Your task to perform on an android device: Show the shopping cart on costco. Search for razer naga on costco, select the first entry, and add it to the cart. Image 0: 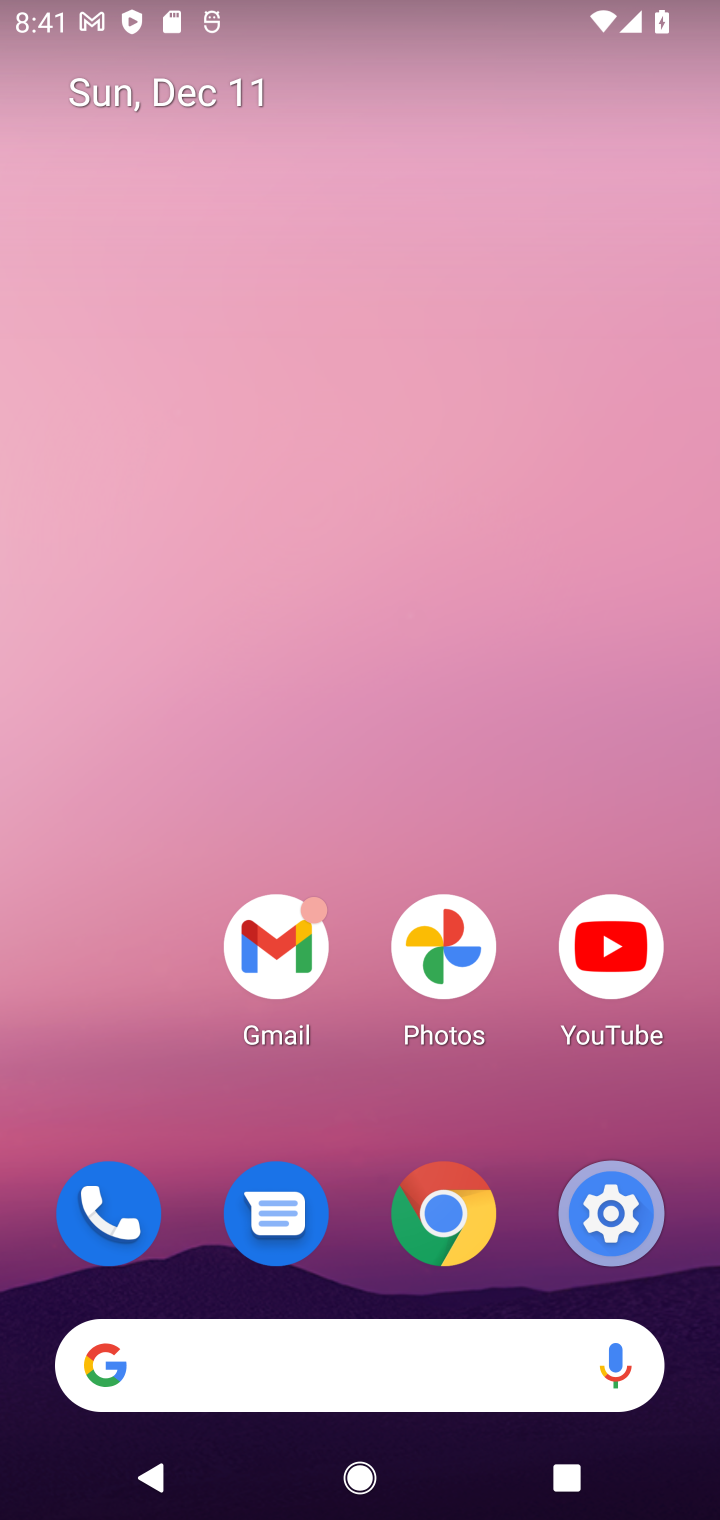
Step 0: click (396, 1359)
Your task to perform on an android device: Show the shopping cart on costco. Search for razer naga on costco, select the first entry, and add it to the cart. Image 1: 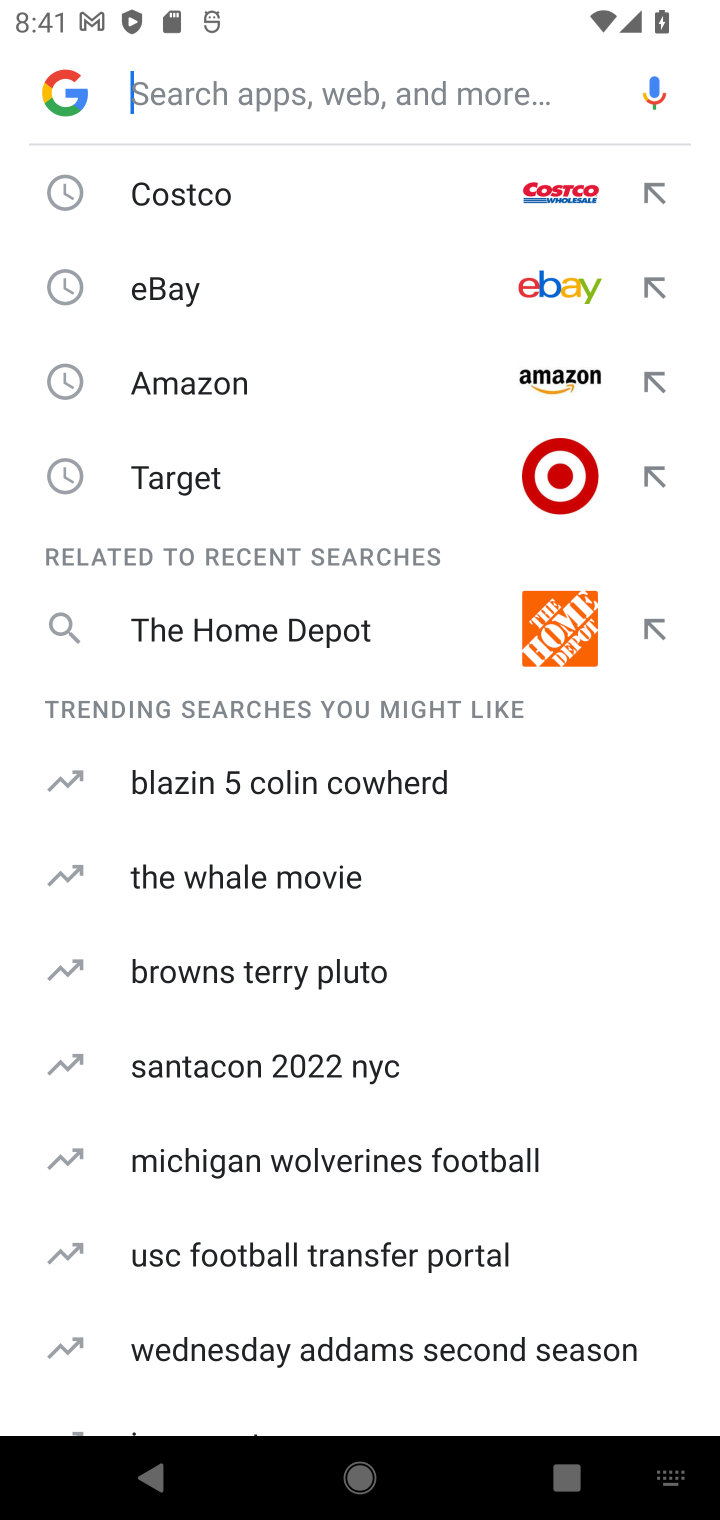
Step 1: type "costco"
Your task to perform on an android device: Show the shopping cart on costco. Search for razer naga on costco, select the first entry, and add it to the cart. Image 2: 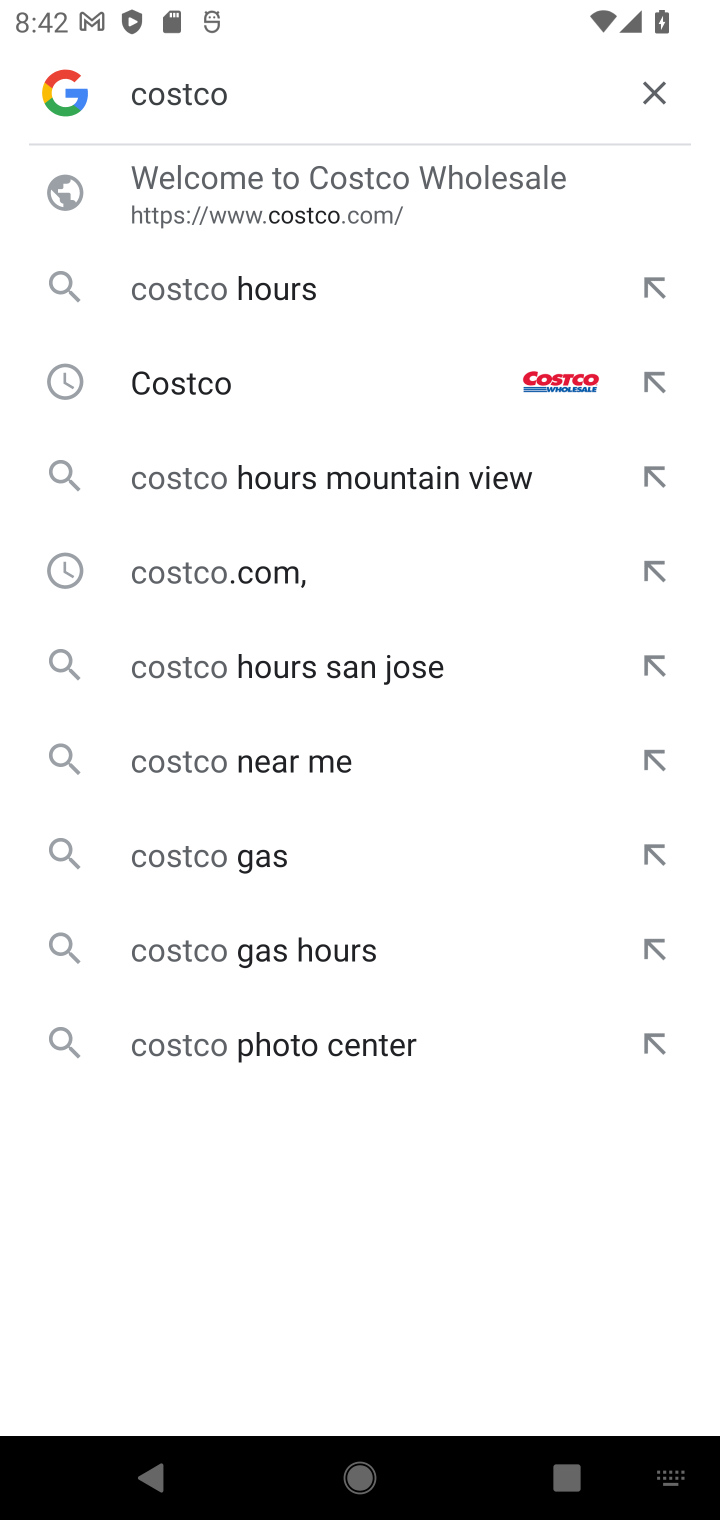
Step 2: click (278, 379)
Your task to perform on an android device: Show the shopping cart on costco. Search for razer naga on costco, select the first entry, and add it to the cart. Image 3: 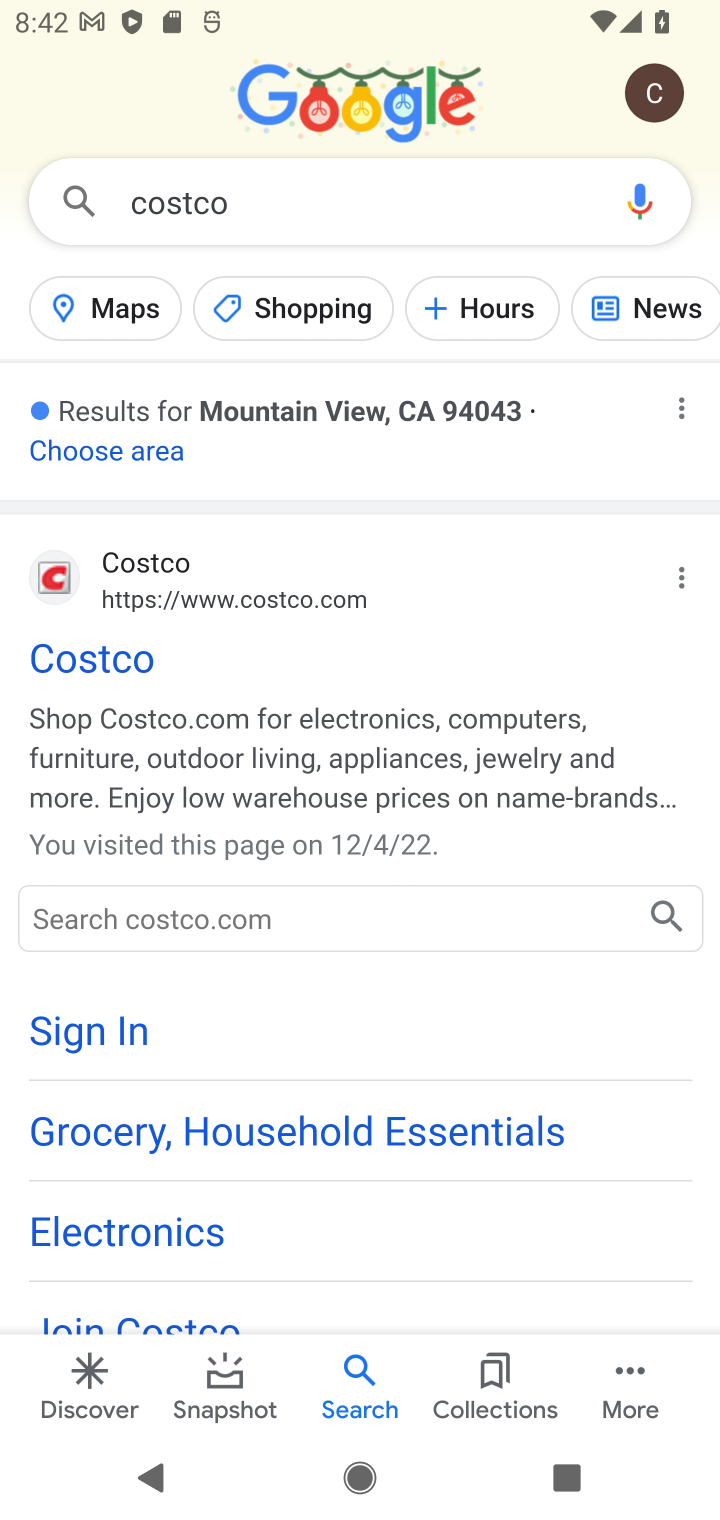
Step 3: click (72, 683)
Your task to perform on an android device: Show the shopping cart on costco. Search for razer naga on costco, select the first entry, and add it to the cart. Image 4: 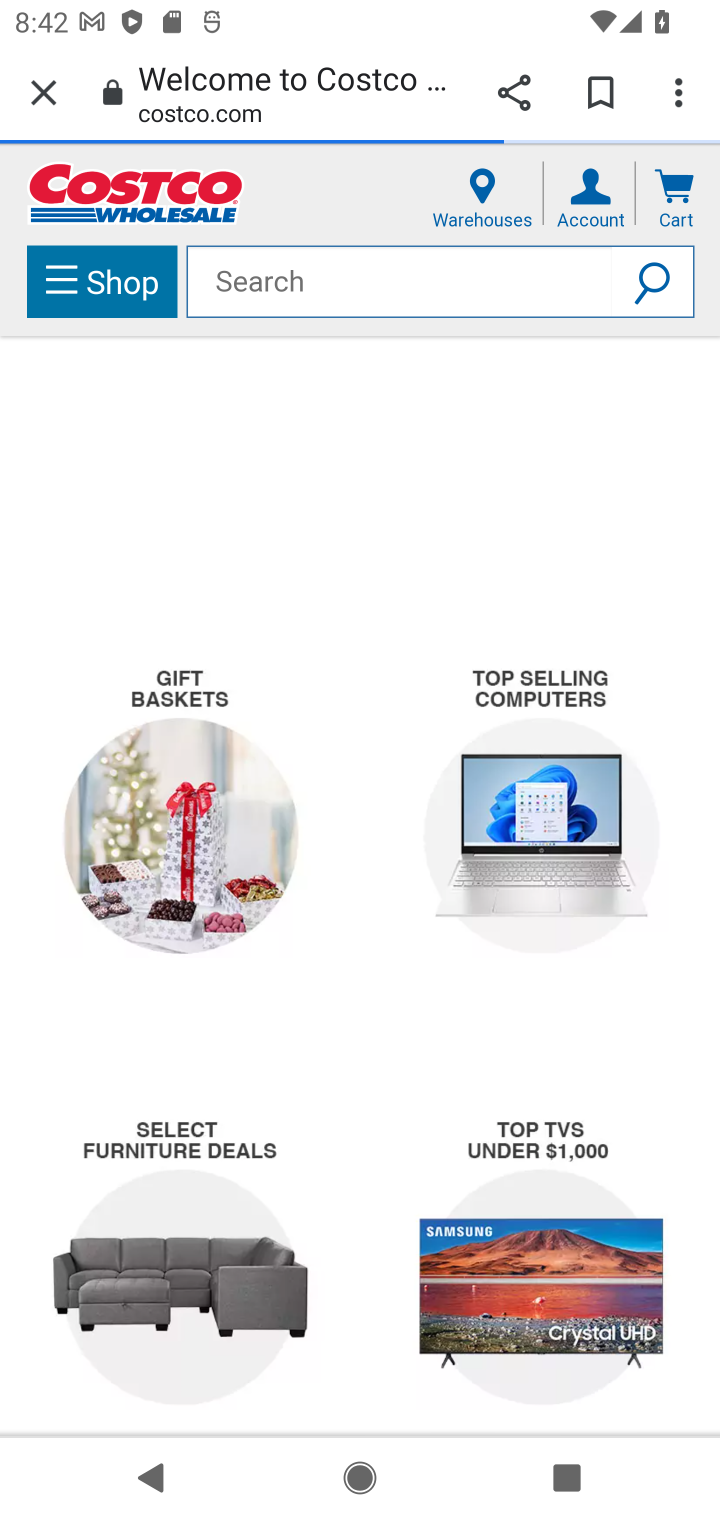
Step 4: click (334, 282)
Your task to perform on an android device: Show the shopping cart on costco. Search for razer naga on costco, select the first entry, and add it to the cart. Image 5: 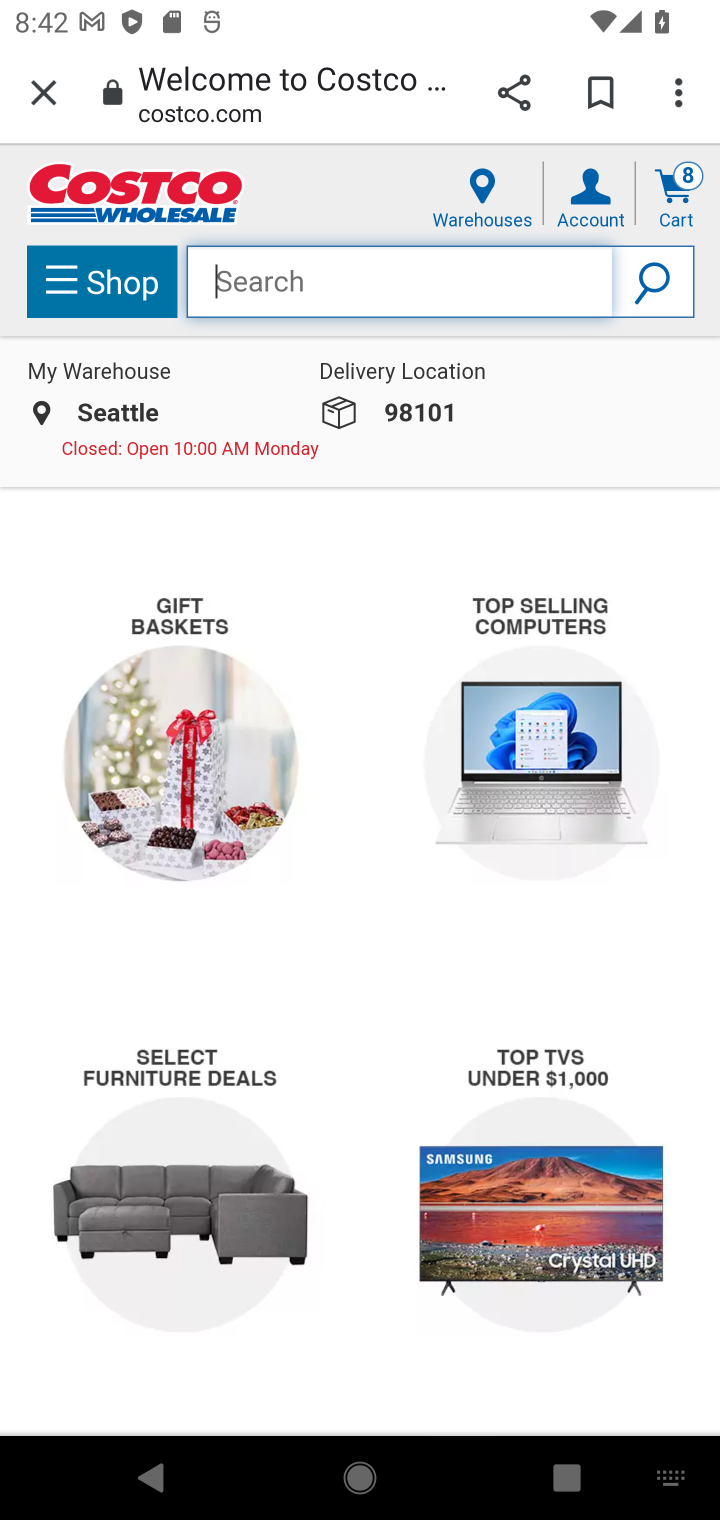
Step 5: type "razer naga"
Your task to perform on an android device: Show the shopping cart on costco. Search for razer naga on costco, select the first entry, and add it to the cart. Image 6: 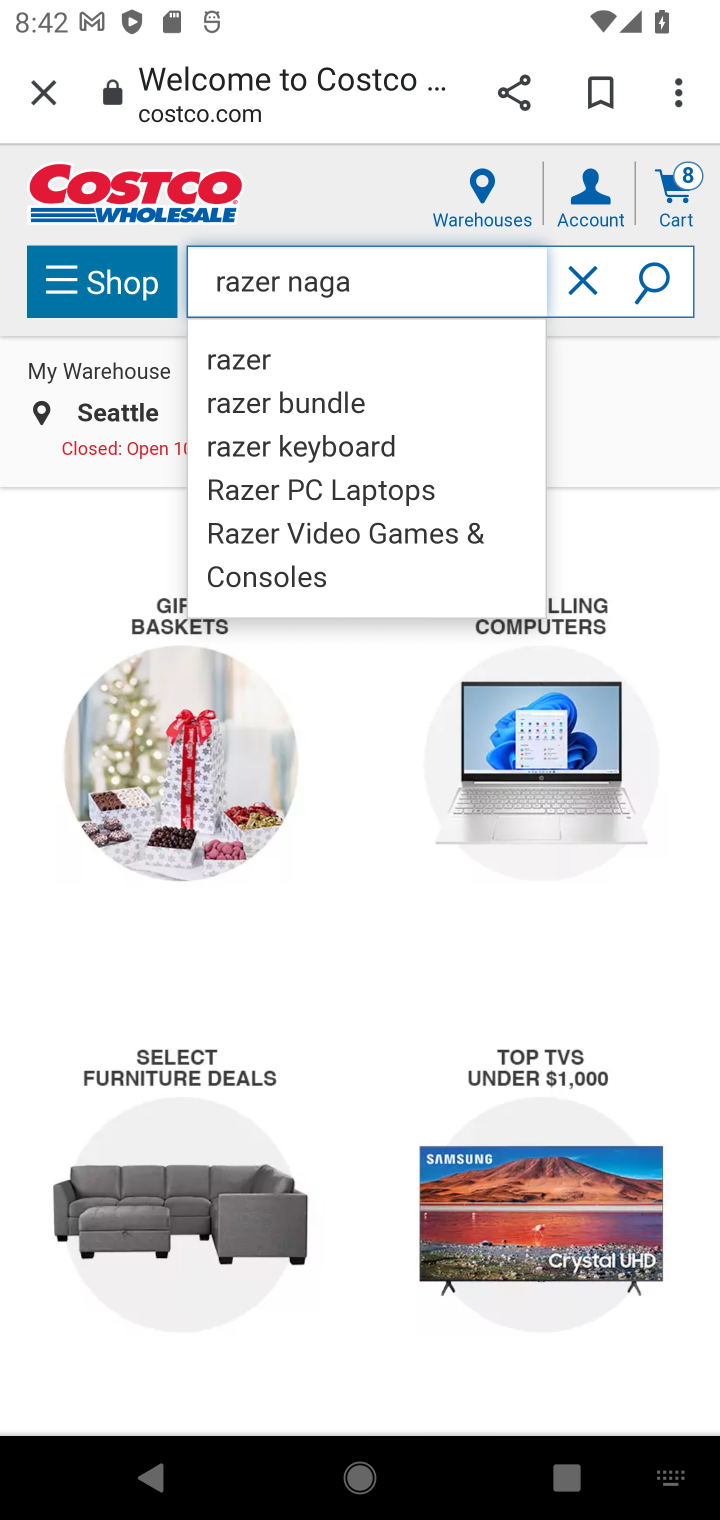
Step 6: click (648, 296)
Your task to perform on an android device: Show the shopping cart on costco. Search for razer naga on costco, select the first entry, and add it to the cart. Image 7: 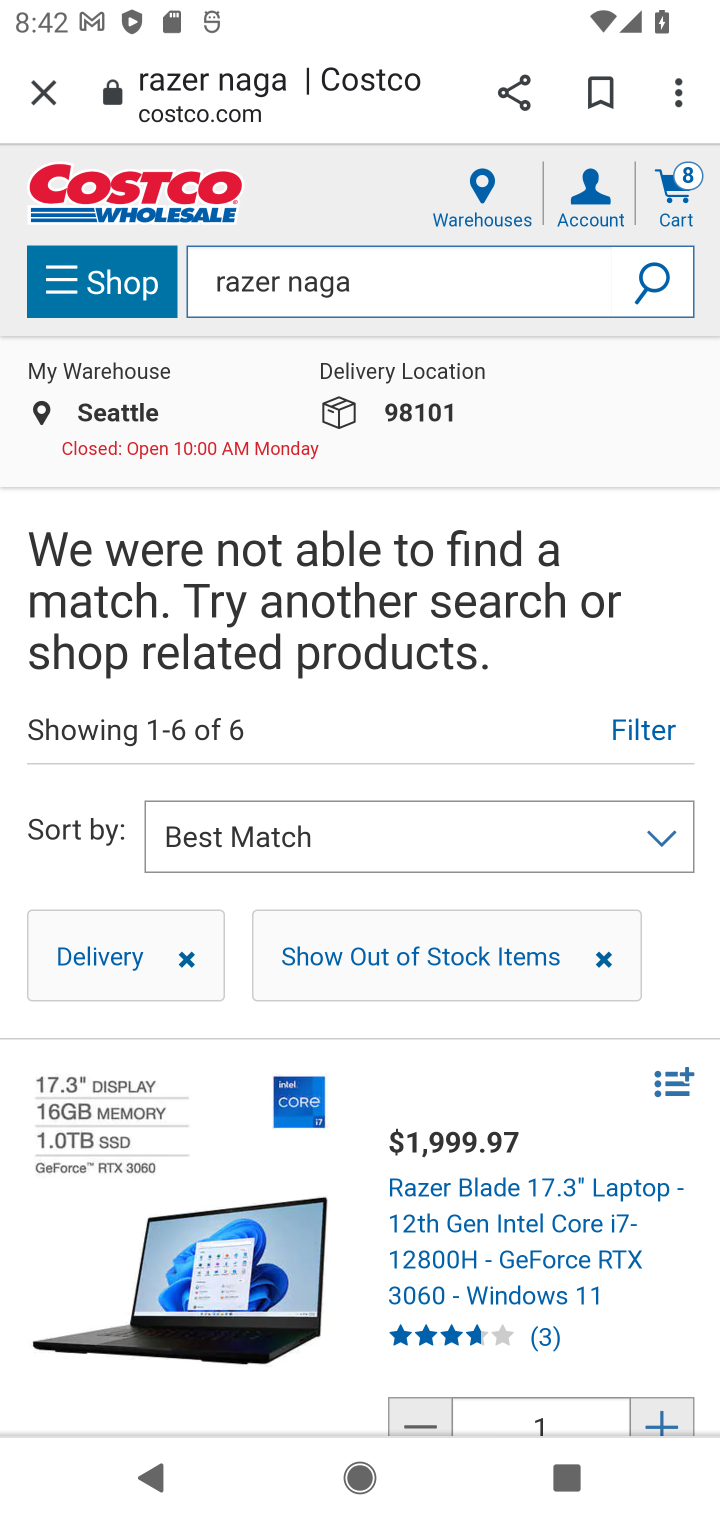
Step 7: drag from (314, 1406) to (484, 458)
Your task to perform on an android device: Show the shopping cart on costco. Search for razer naga on costco, select the first entry, and add it to the cart. Image 8: 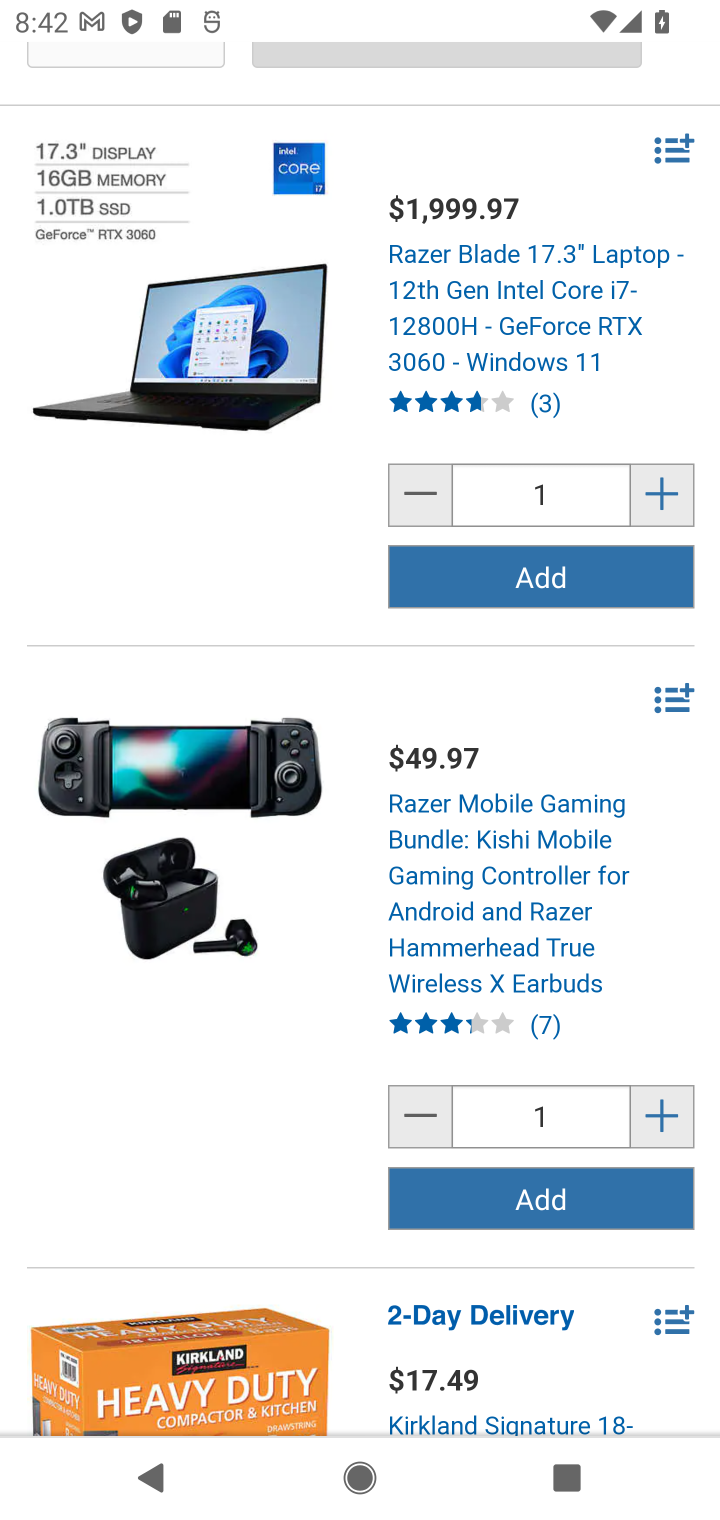
Step 8: click (552, 600)
Your task to perform on an android device: Show the shopping cart on costco. Search for razer naga on costco, select the first entry, and add it to the cart. Image 9: 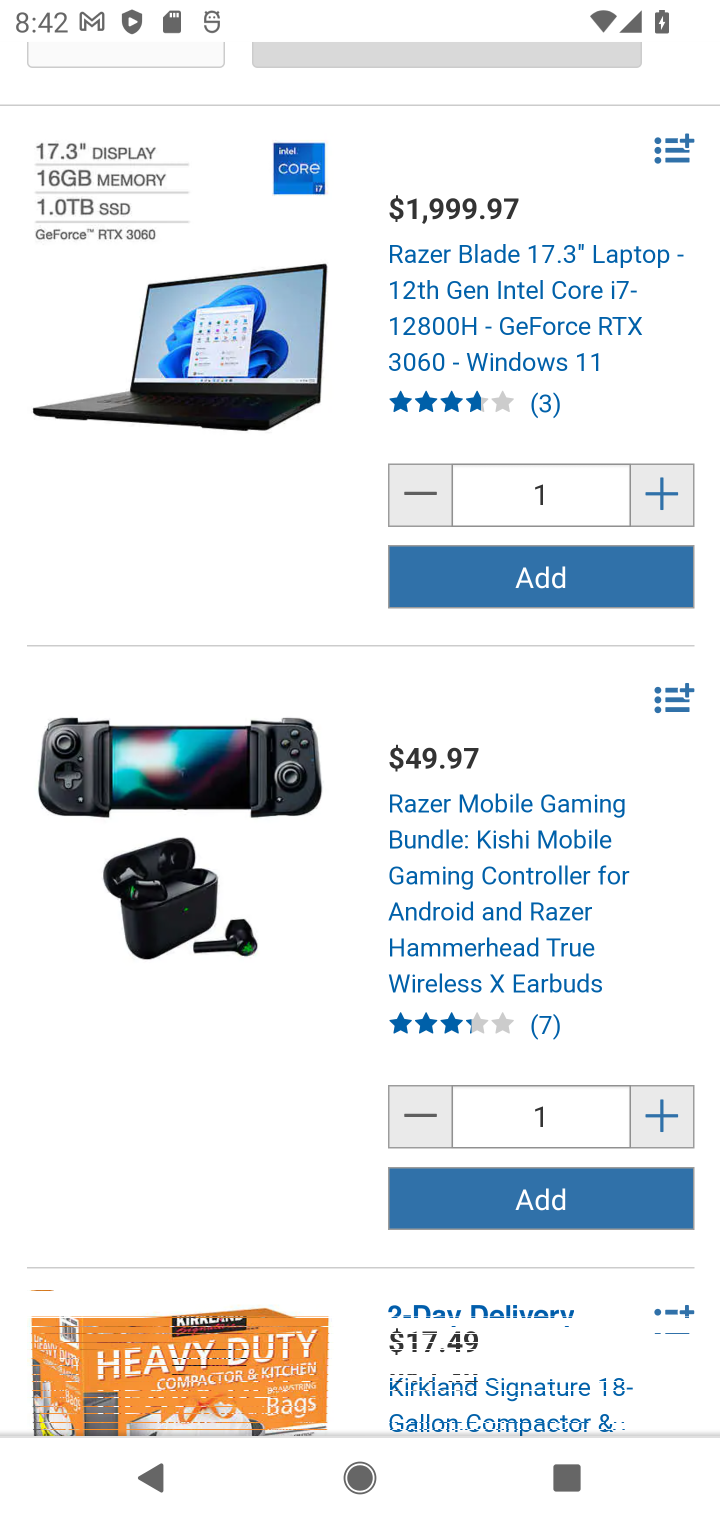
Step 9: task complete